Your task to perform on an android device: check google app version Image 0: 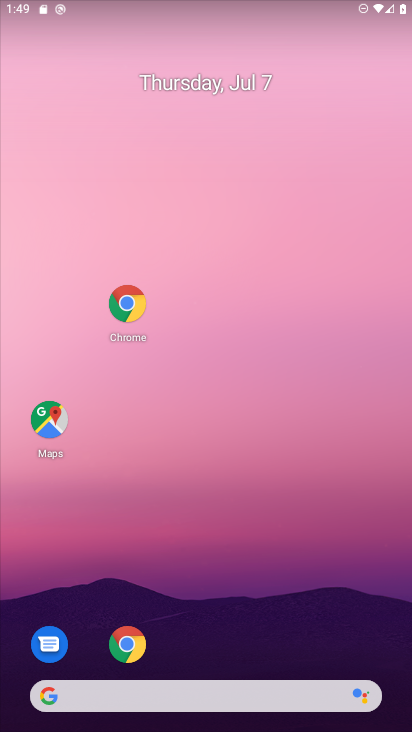
Step 0: drag from (220, 566) to (346, 59)
Your task to perform on an android device: check google app version Image 1: 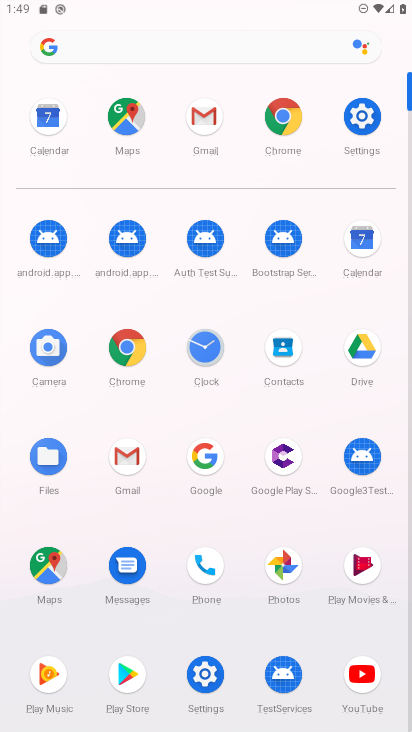
Step 1: click (128, 348)
Your task to perform on an android device: check google app version Image 2: 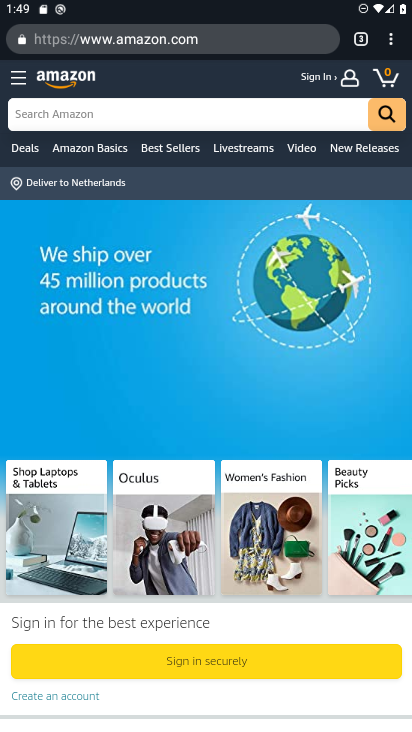
Step 2: click (389, 47)
Your task to perform on an android device: check google app version Image 3: 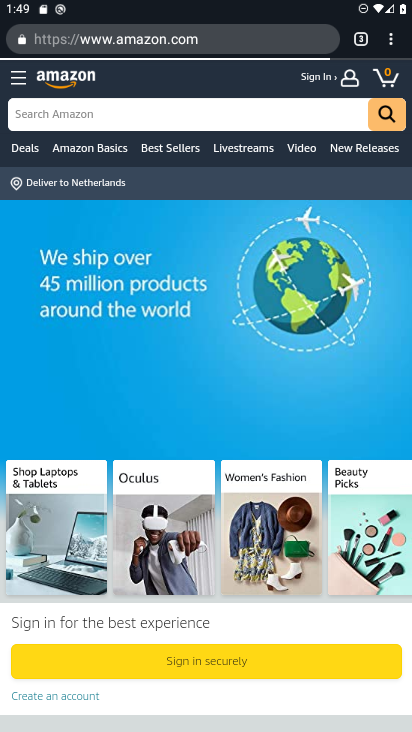
Step 3: click (396, 43)
Your task to perform on an android device: check google app version Image 4: 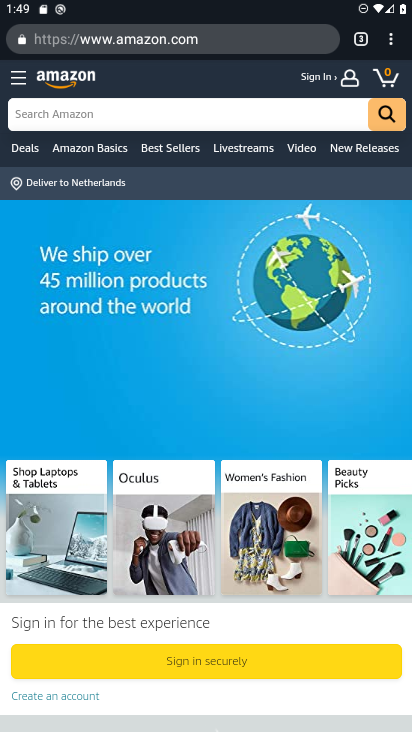
Step 4: click (396, 43)
Your task to perform on an android device: check google app version Image 5: 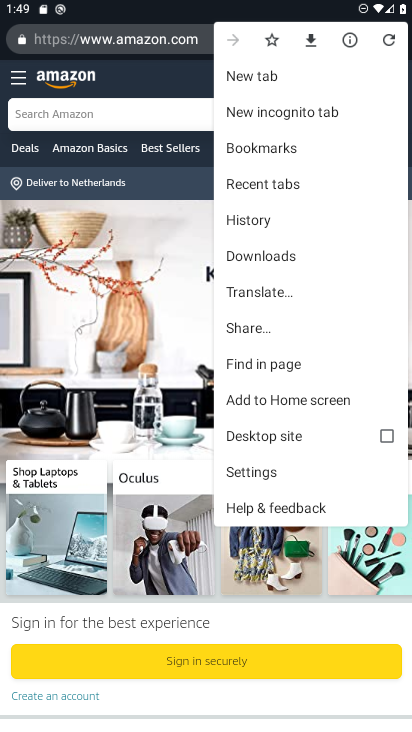
Step 5: click (287, 468)
Your task to perform on an android device: check google app version Image 6: 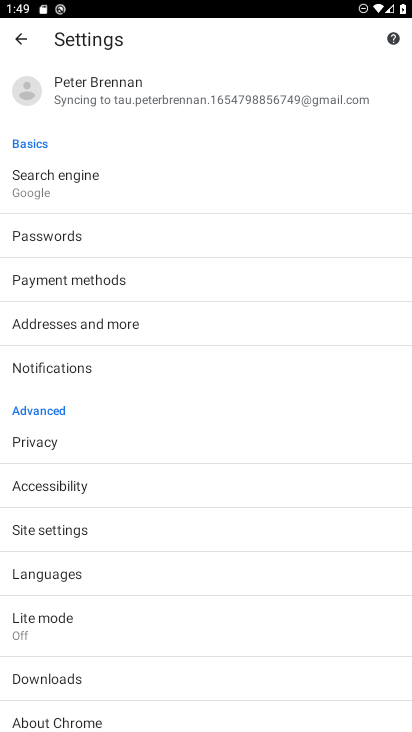
Step 6: drag from (132, 632) to (207, 192)
Your task to perform on an android device: check google app version Image 7: 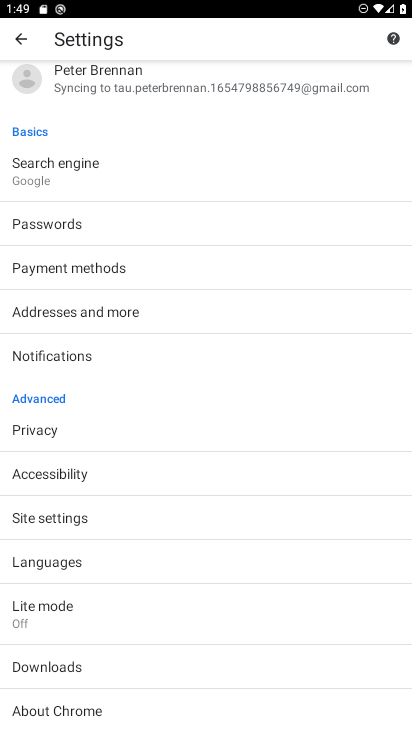
Step 7: click (147, 711)
Your task to perform on an android device: check google app version Image 8: 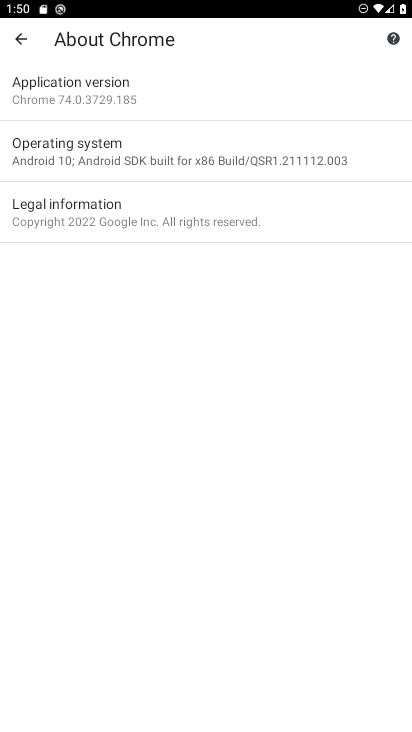
Step 8: click (237, 99)
Your task to perform on an android device: check google app version Image 9: 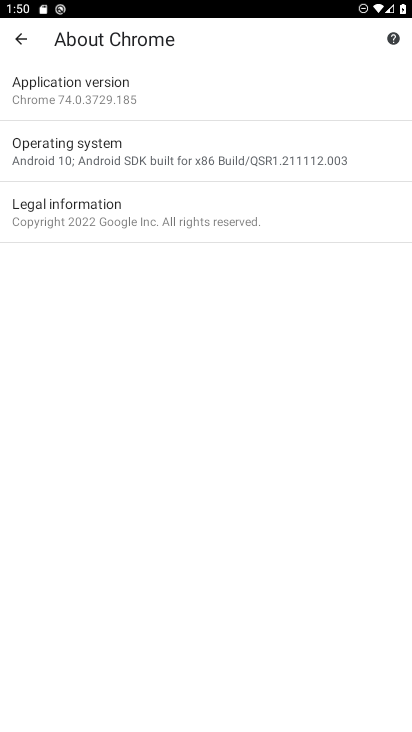
Step 9: task complete